Your task to perform on an android device: turn off airplane mode Image 0: 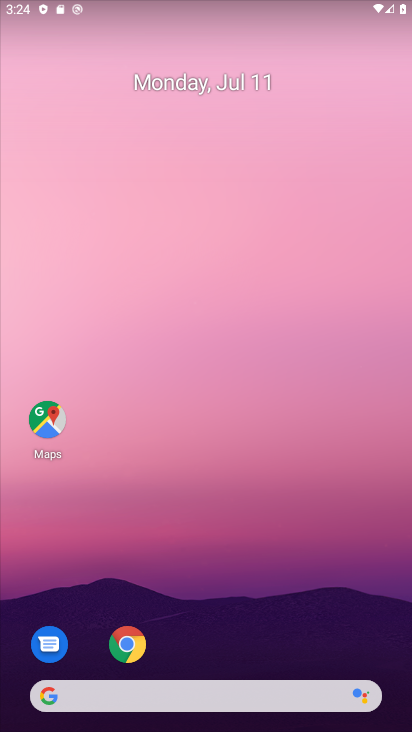
Step 0: press home button
Your task to perform on an android device: turn off airplane mode Image 1: 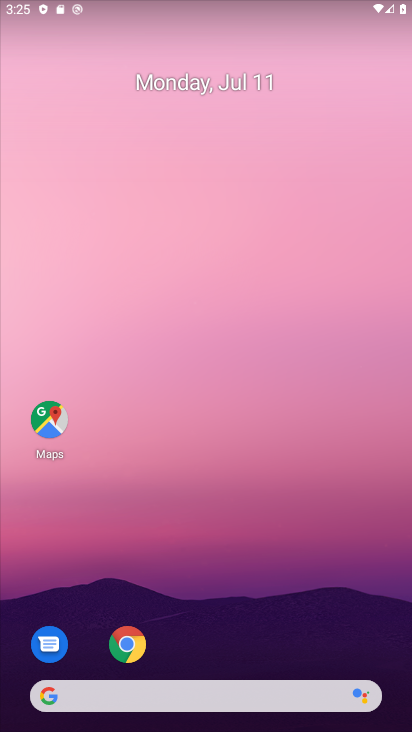
Step 1: task complete